Your task to perform on an android device: Do I have any events tomorrow? Image 0: 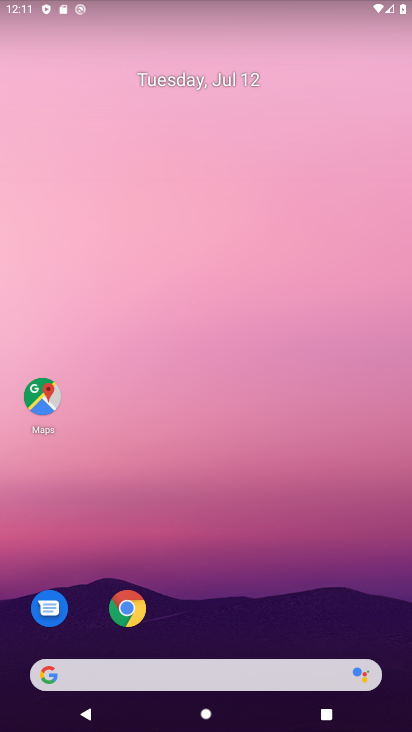
Step 0: drag from (318, 508) to (325, 235)
Your task to perform on an android device: Do I have any events tomorrow? Image 1: 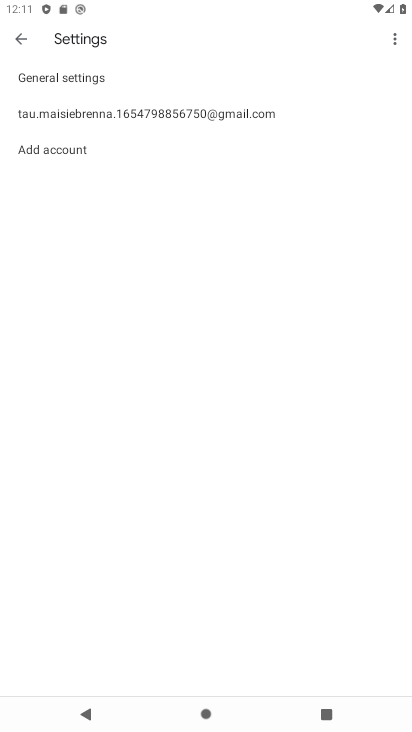
Step 1: click (12, 34)
Your task to perform on an android device: Do I have any events tomorrow? Image 2: 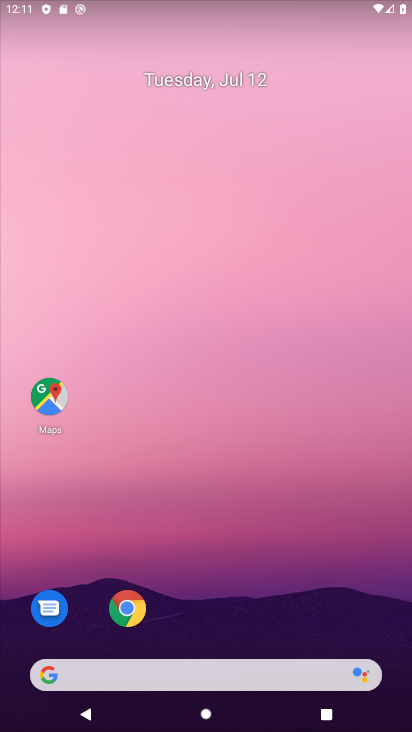
Step 2: drag from (288, 561) to (322, 214)
Your task to perform on an android device: Do I have any events tomorrow? Image 3: 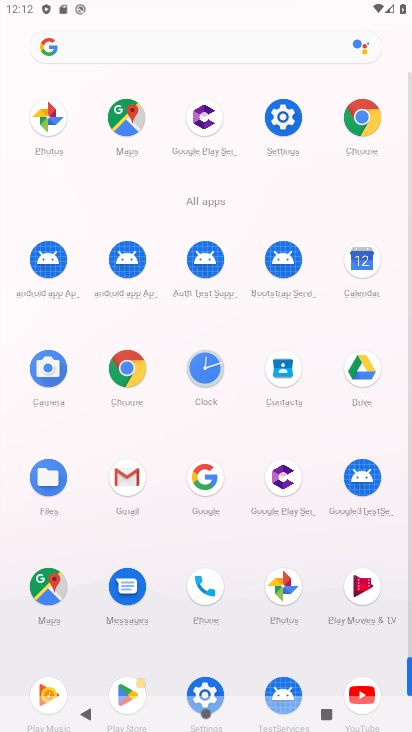
Step 3: click (119, 368)
Your task to perform on an android device: Do I have any events tomorrow? Image 4: 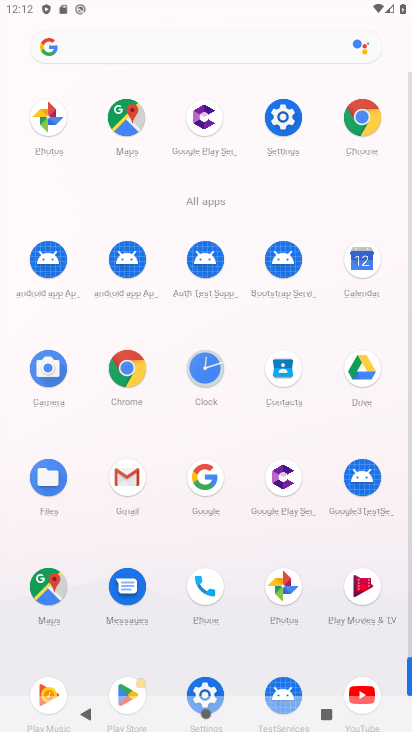
Step 4: click (122, 368)
Your task to perform on an android device: Do I have any events tomorrow? Image 5: 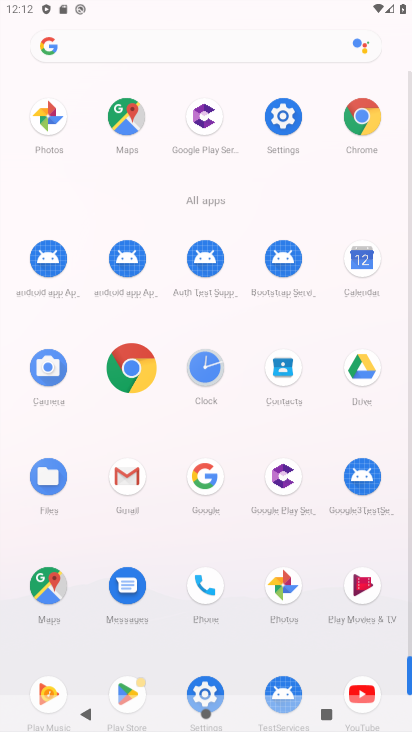
Step 5: click (125, 369)
Your task to perform on an android device: Do I have any events tomorrow? Image 6: 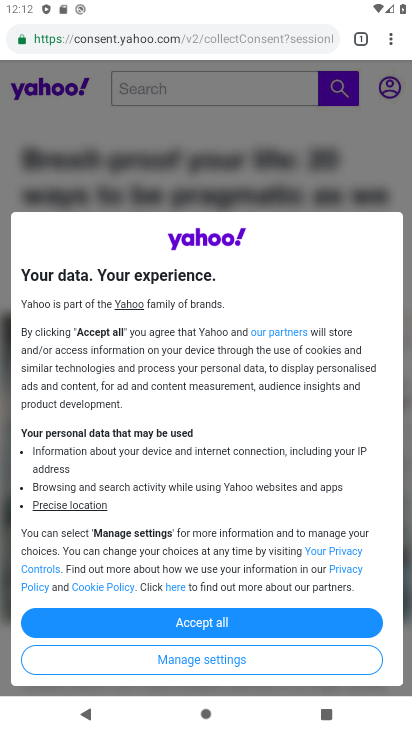
Step 6: press back button
Your task to perform on an android device: Do I have any events tomorrow? Image 7: 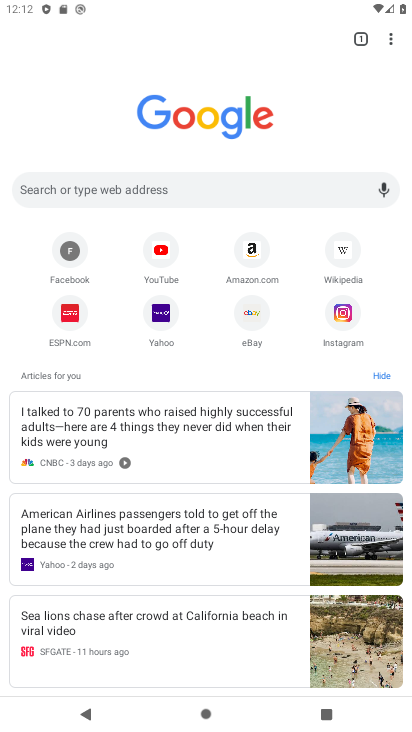
Step 7: press home button
Your task to perform on an android device: Do I have any events tomorrow? Image 8: 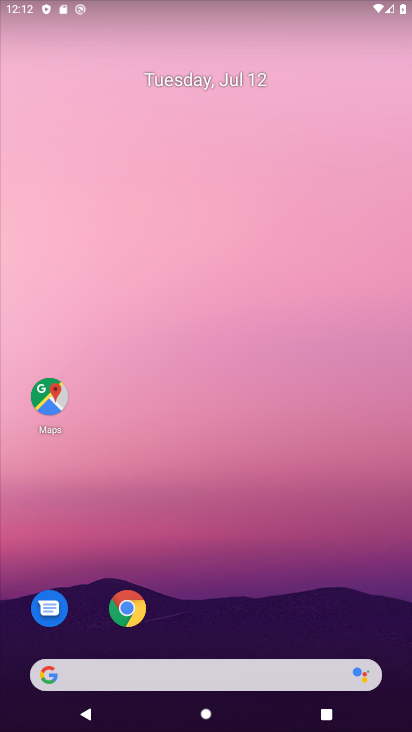
Step 8: drag from (266, 647) to (186, 242)
Your task to perform on an android device: Do I have any events tomorrow? Image 9: 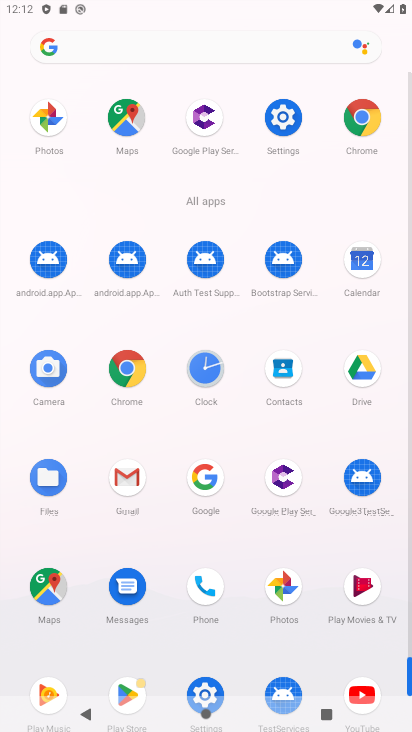
Step 9: click (369, 257)
Your task to perform on an android device: Do I have any events tomorrow? Image 10: 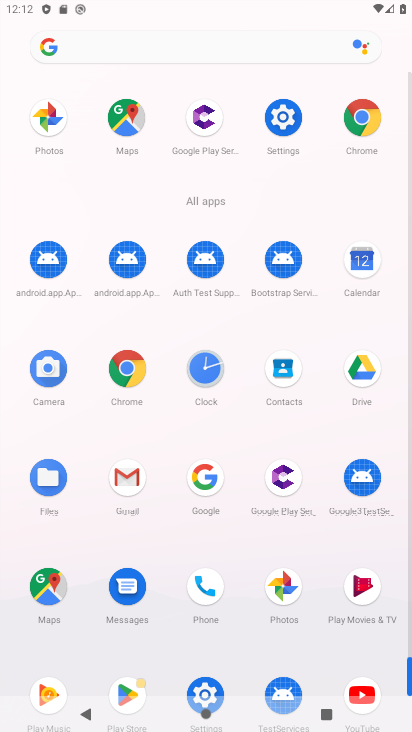
Step 10: click (368, 257)
Your task to perform on an android device: Do I have any events tomorrow? Image 11: 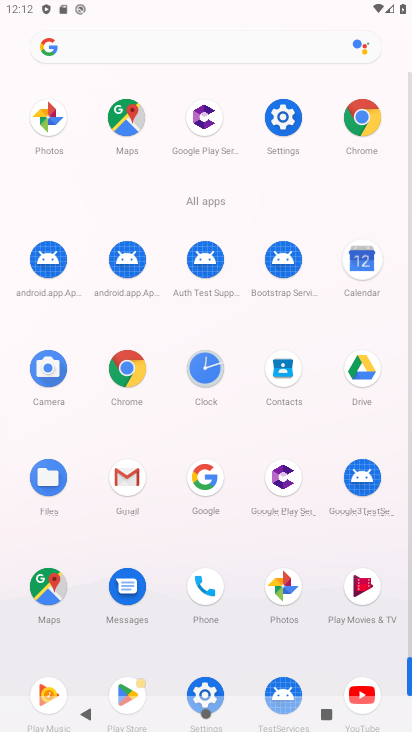
Step 11: click (368, 257)
Your task to perform on an android device: Do I have any events tomorrow? Image 12: 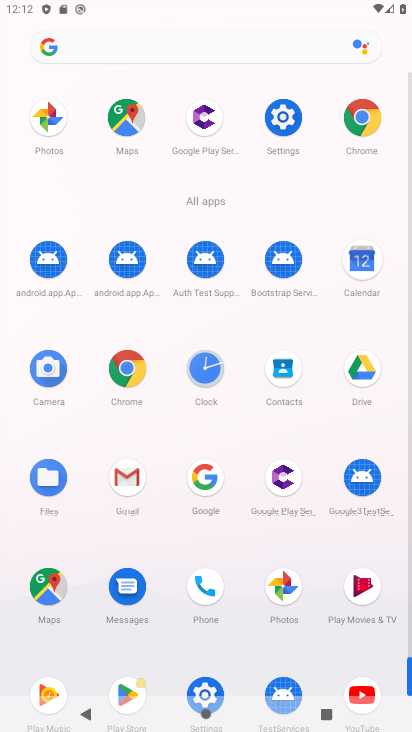
Step 12: click (368, 257)
Your task to perform on an android device: Do I have any events tomorrow? Image 13: 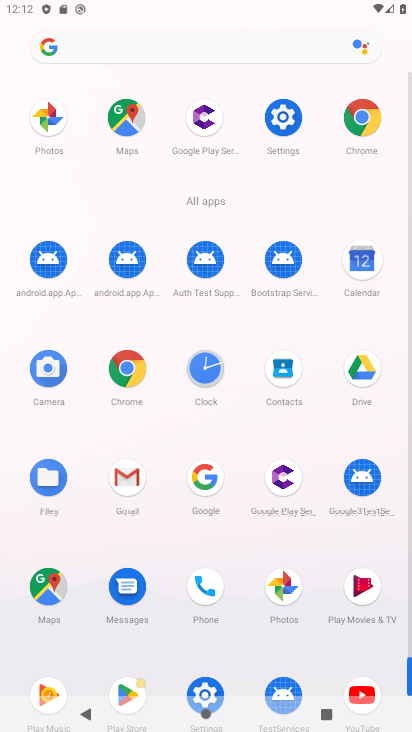
Step 13: click (368, 257)
Your task to perform on an android device: Do I have any events tomorrow? Image 14: 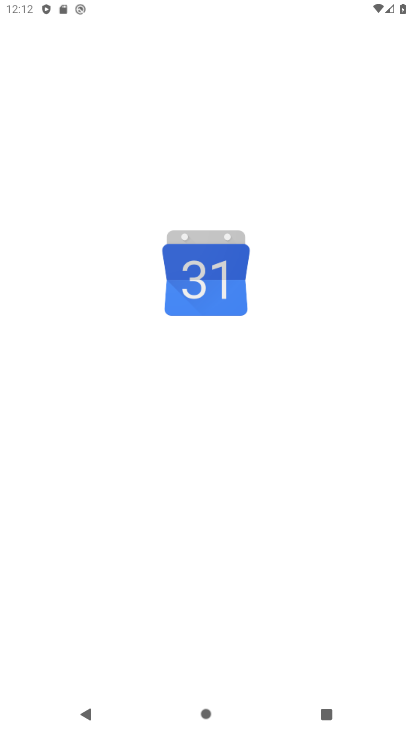
Step 14: click (372, 262)
Your task to perform on an android device: Do I have any events tomorrow? Image 15: 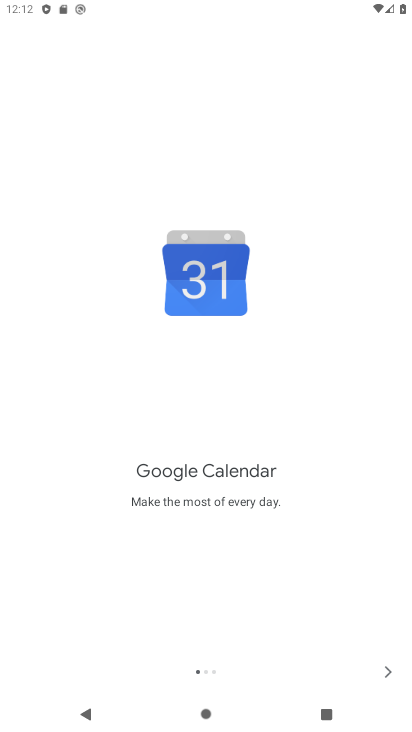
Step 15: click (382, 671)
Your task to perform on an android device: Do I have any events tomorrow? Image 16: 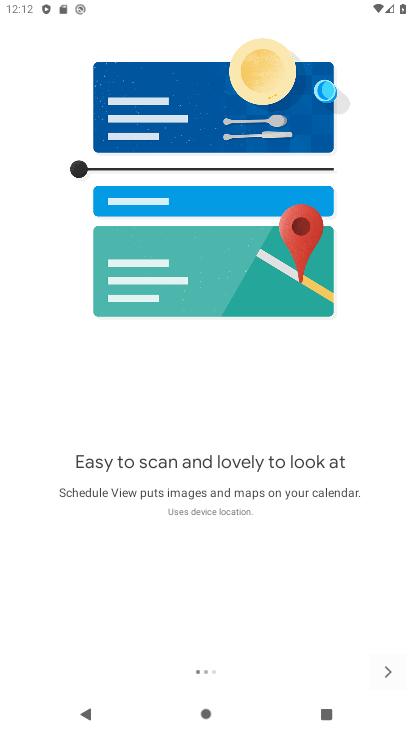
Step 16: click (391, 660)
Your task to perform on an android device: Do I have any events tomorrow? Image 17: 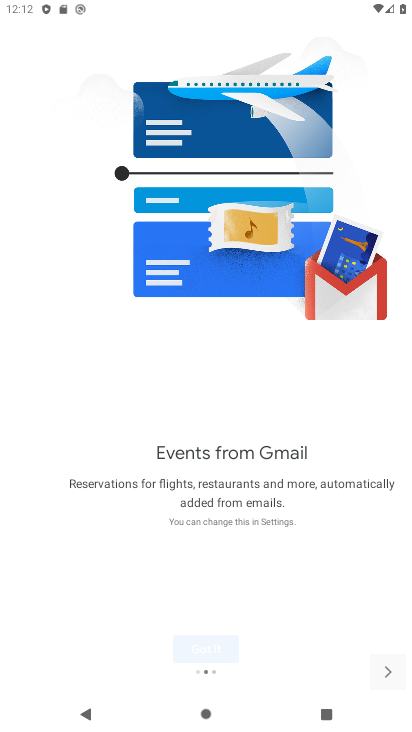
Step 17: click (391, 660)
Your task to perform on an android device: Do I have any events tomorrow? Image 18: 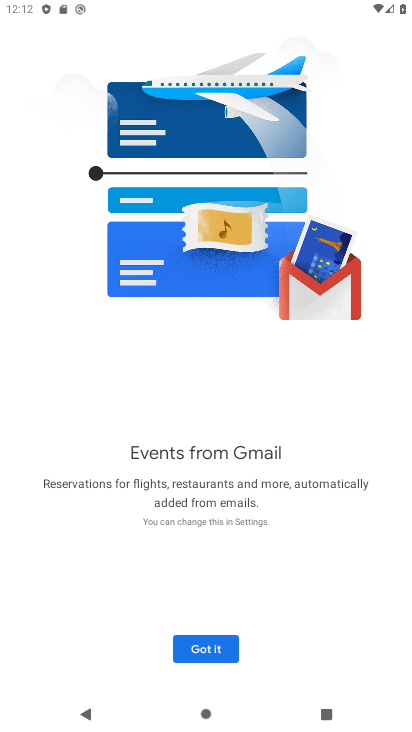
Step 18: click (393, 660)
Your task to perform on an android device: Do I have any events tomorrow? Image 19: 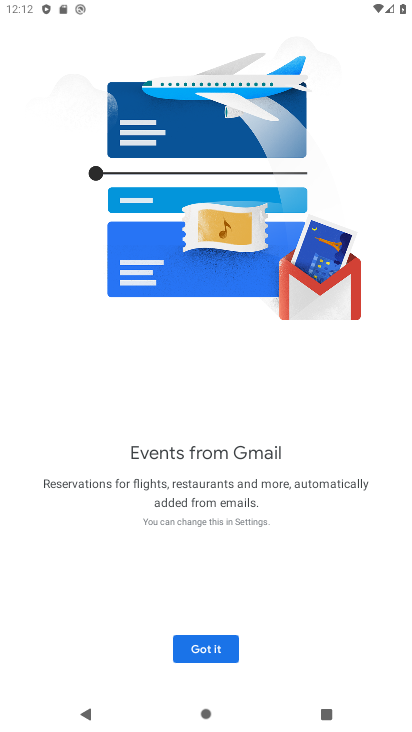
Step 19: click (393, 660)
Your task to perform on an android device: Do I have any events tomorrow? Image 20: 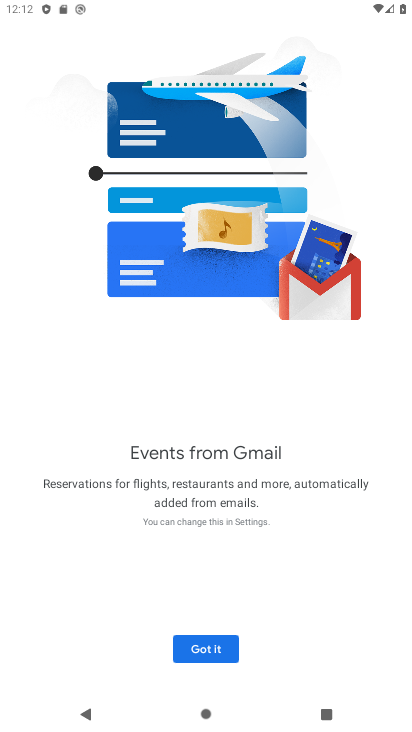
Step 20: click (393, 660)
Your task to perform on an android device: Do I have any events tomorrow? Image 21: 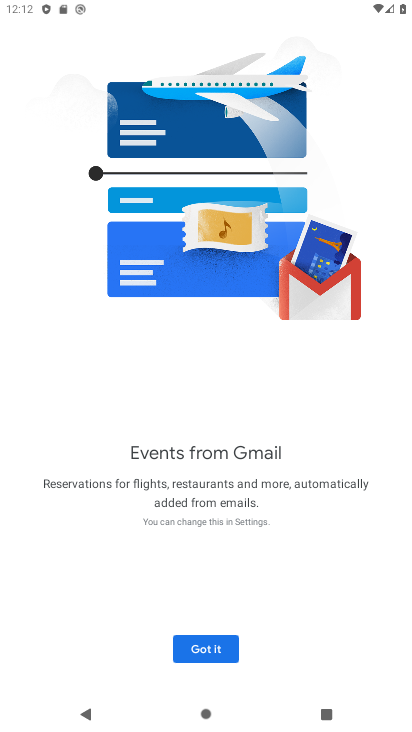
Step 21: click (395, 659)
Your task to perform on an android device: Do I have any events tomorrow? Image 22: 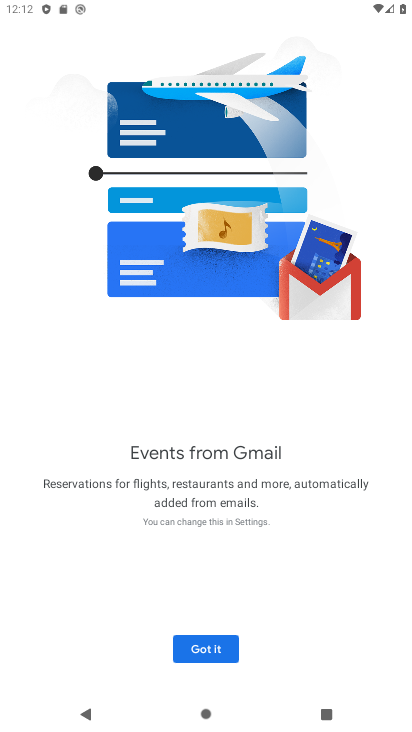
Step 22: click (397, 653)
Your task to perform on an android device: Do I have any events tomorrow? Image 23: 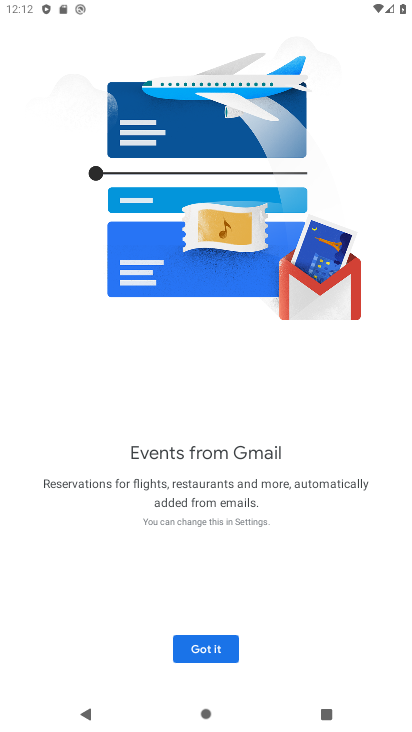
Step 23: click (209, 646)
Your task to perform on an android device: Do I have any events tomorrow? Image 24: 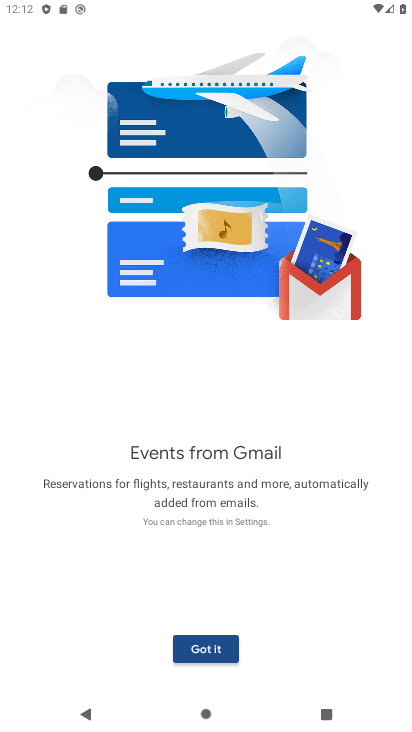
Step 24: click (209, 646)
Your task to perform on an android device: Do I have any events tomorrow? Image 25: 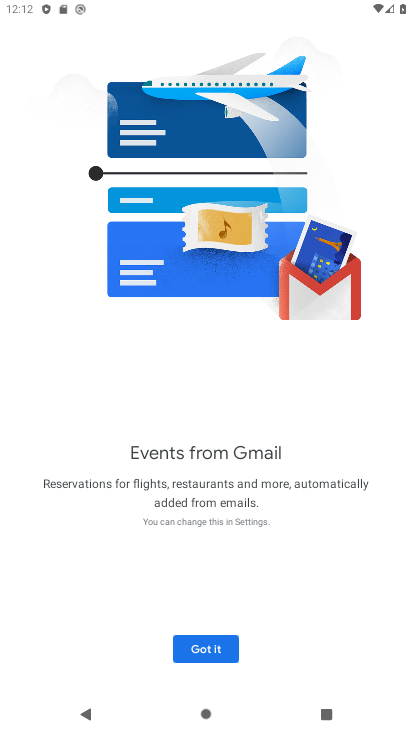
Step 25: click (212, 646)
Your task to perform on an android device: Do I have any events tomorrow? Image 26: 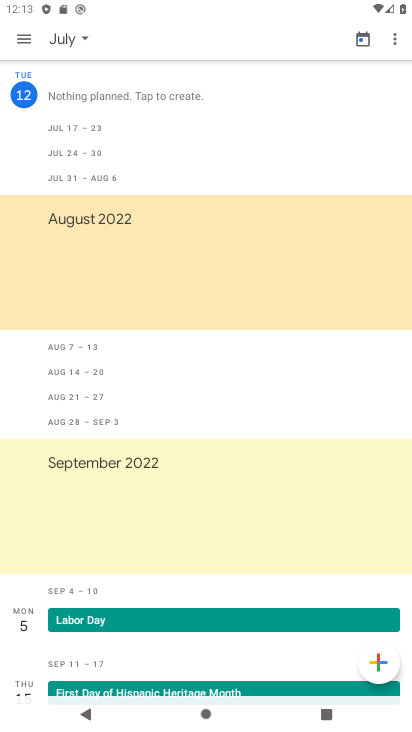
Step 26: click (84, 36)
Your task to perform on an android device: Do I have any events tomorrow? Image 27: 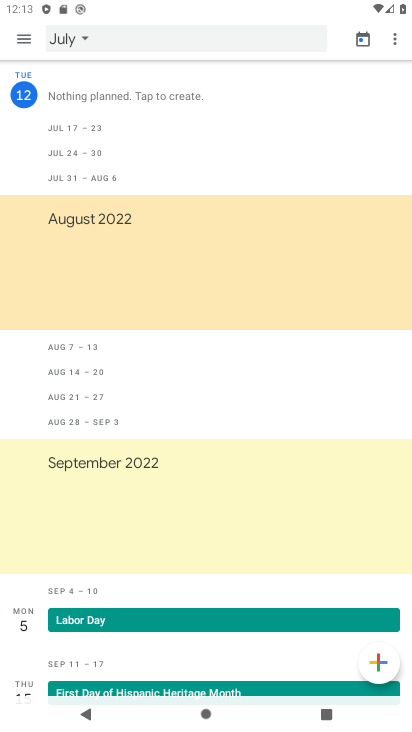
Step 27: click (84, 36)
Your task to perform on an android device: Do I have any events tomorrow? Image 28: 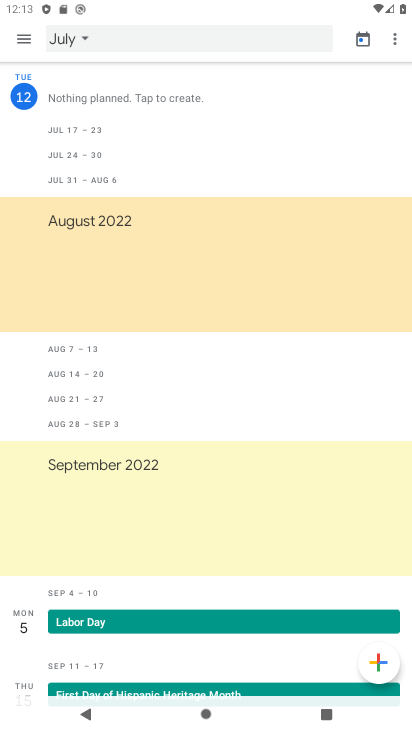
Step 28: click (82, 35)
Your task to perform on an android device: Do I have any events tomorrow? Image 29: 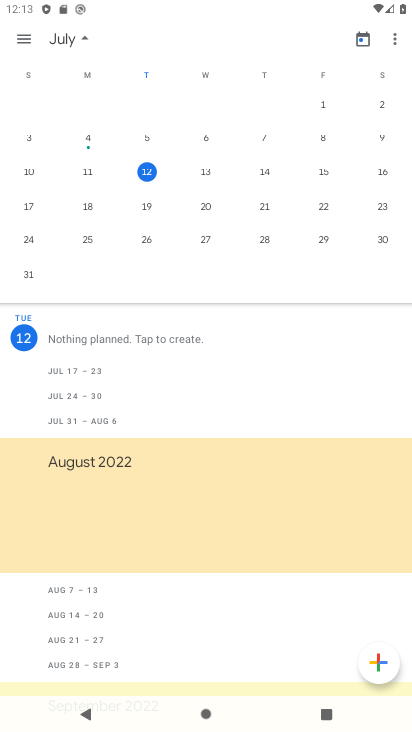
Step 29: click (202, 170)
Your task to perform on an android device: Do I have any events tomorrow? Image 30: 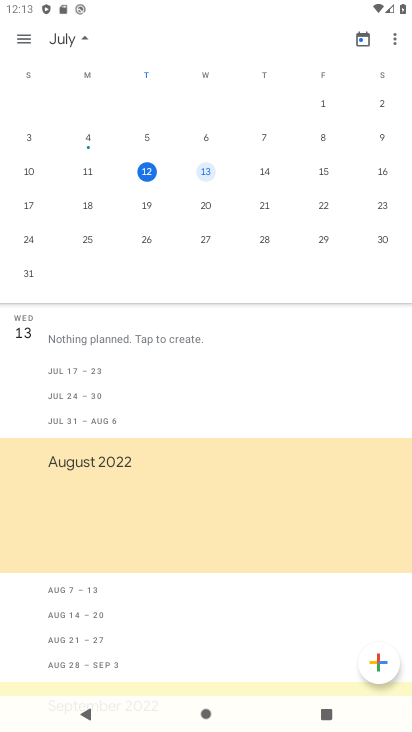
Step 30: click (202, 170)
Your task to perform on an android device: Do I have any events tomorrow? Image 31: 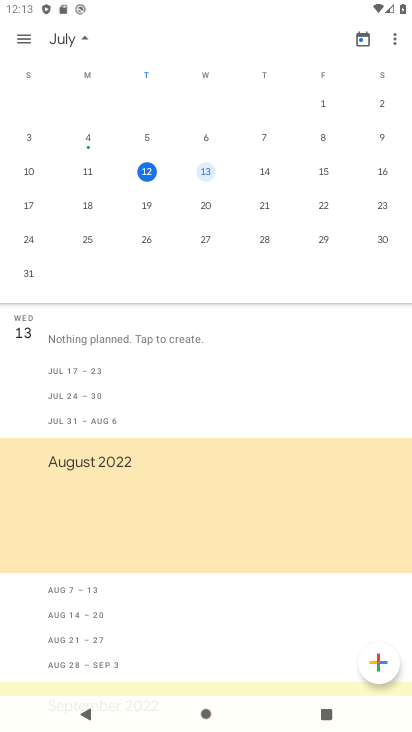
Step 31: click (202, 170)
Your task to perform on an android device: Do I have any events tomorrow? Image 32: 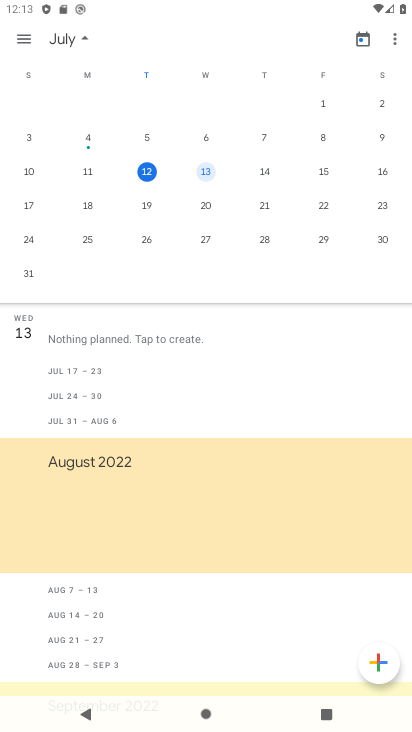
Step 32: click (202, 170)
Your task to perform on an android device: Do I have any events tomorrow? Image 33: 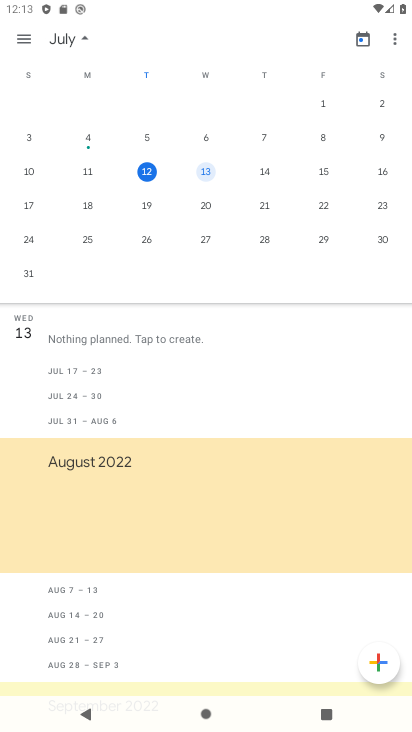
Step 33: click (202, 170)
Your task to perform on an android device: Do I have any events tomorrow? Image 34: 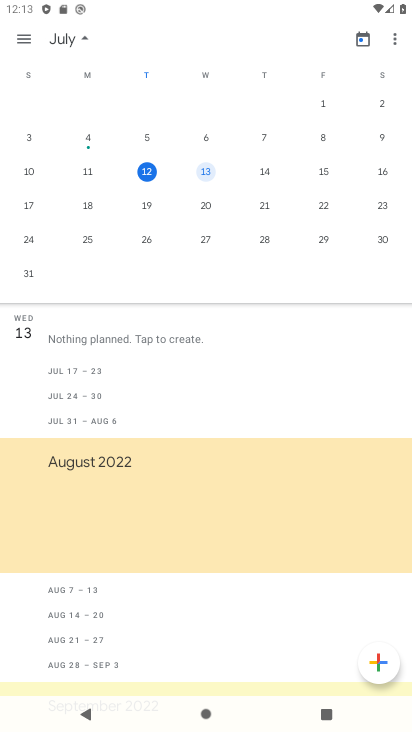
Step 34: click (203, 169)
Your task to perform on an android device: Do I have any events tomorrow? Image 35: 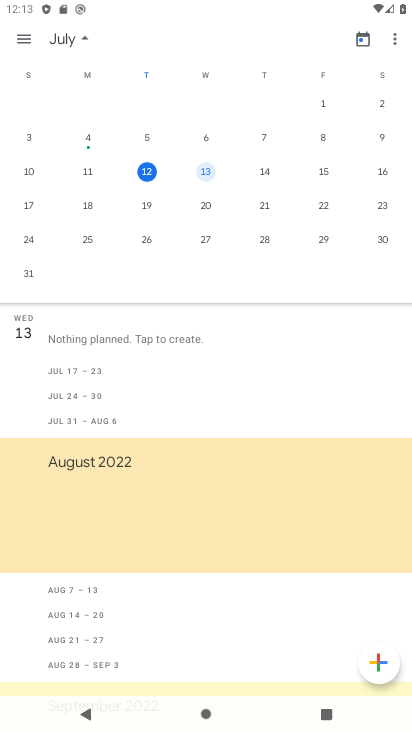
Step 35: click (203, 169)
Your task to perform on an android device: Do I have any events tomorrow? Image 36: 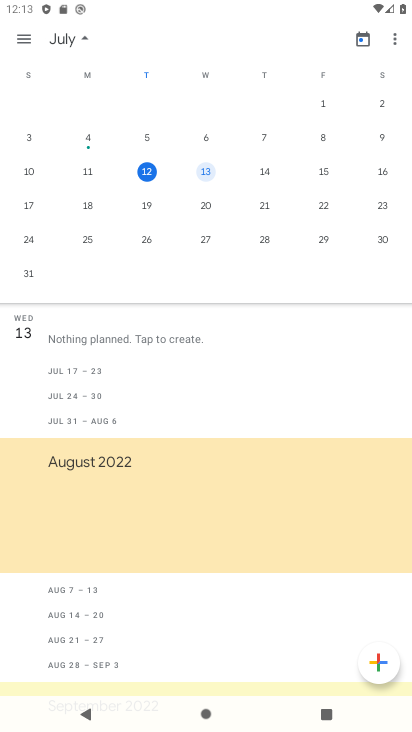
Step 36: task complete